Your task to perform on an android device: delete the emails in spam in the gmail app Image 0: 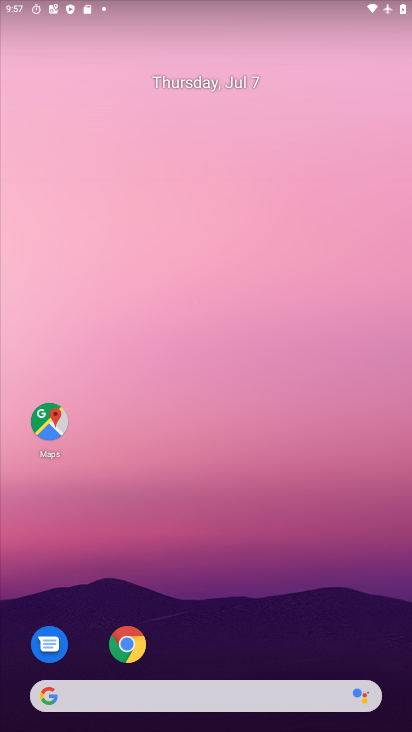
Step 0: drag from (293, 611) to (269, 71)
Your task to perform on an android device: delete the emails in spam in the gmail app Image 1: 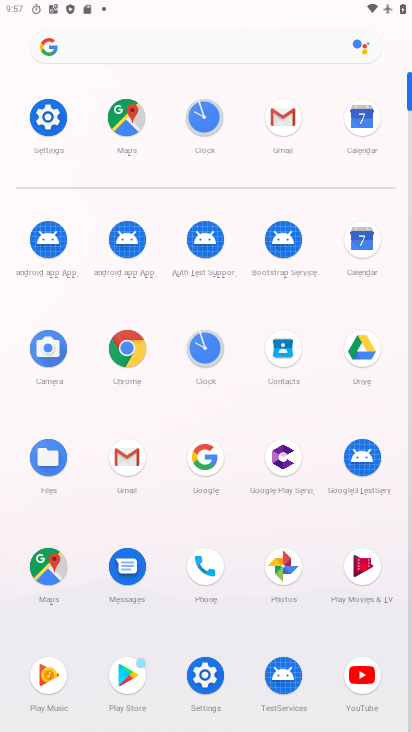
Step 1: click (292, 111)
Your task to perform on an android device: delete the emails in spam in the gmail app Image 2: 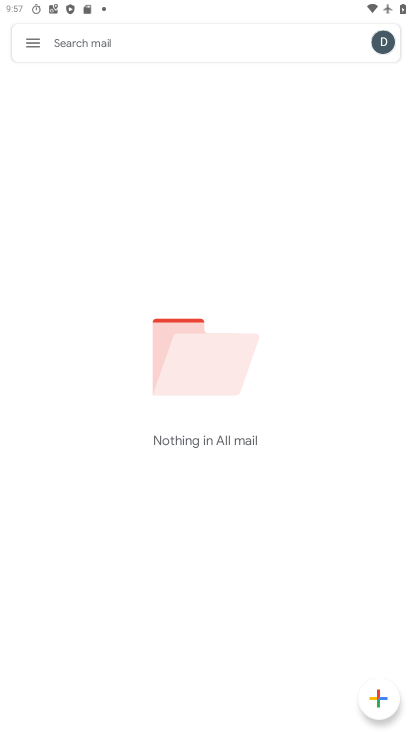
Step 2: click (28, 42)
Your task to perform on an android device: delete the emails in spam in the gmail app Image 3: 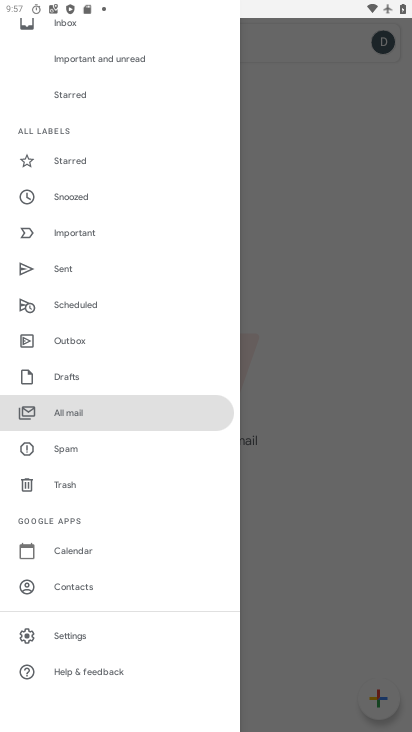
Step 3: click (57, 450)
Your task to perform on an android device: delete the emails in spam in the gmail app Image 4: 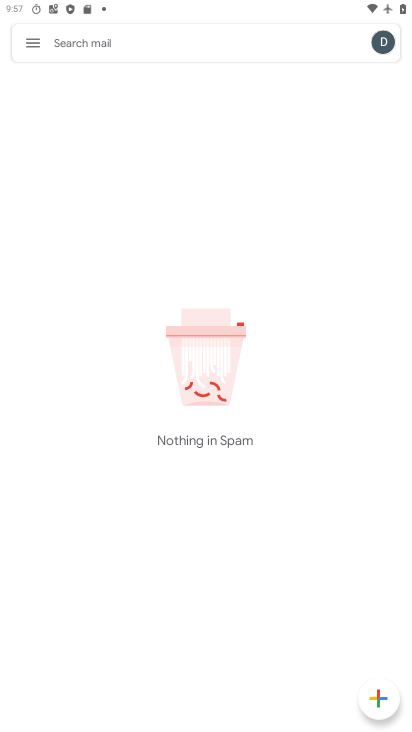
Step 4: task complete